Your task to perform on an android device: change the clock style Image 0: 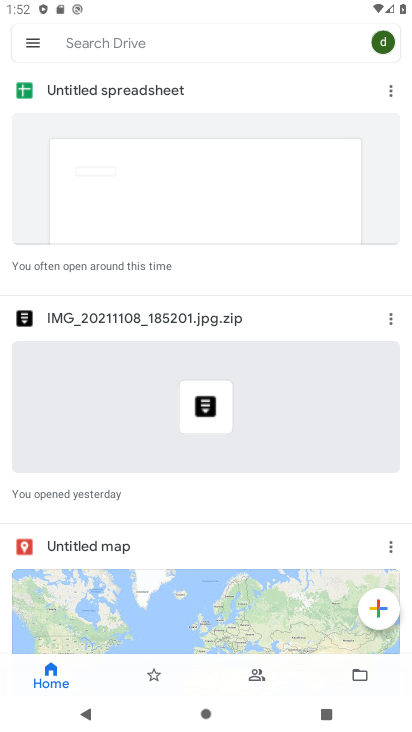
Step 0: press home button
Your task to perform on an android device: change the clock style Image 1: 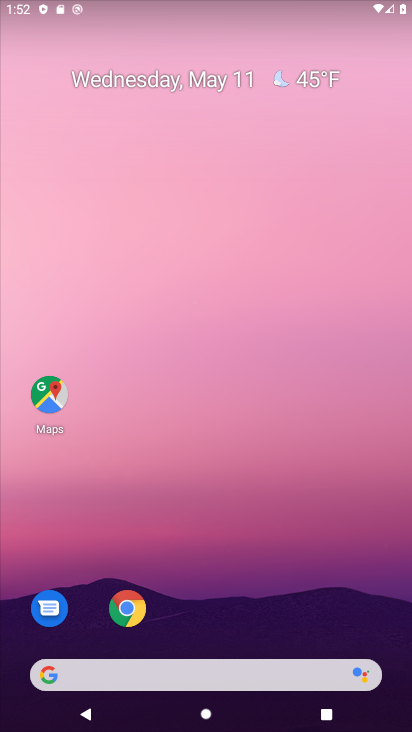
Step 1: drag from (239, 605) to (260, 104)
Your task to perform on an android device: change the clock style Image 2: 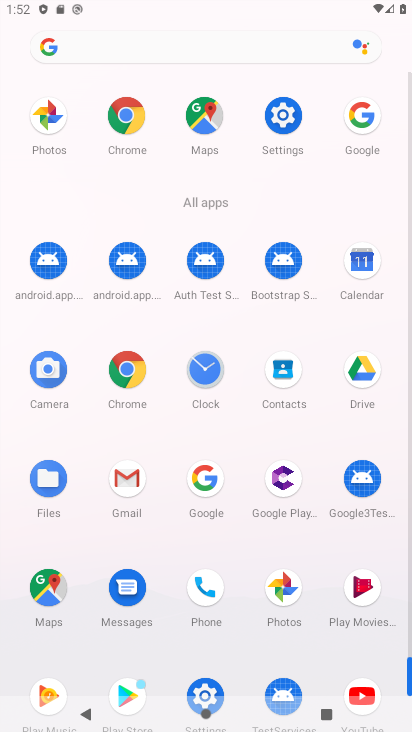
Step 2: click (211, 372)
Your task to perform on an android device: change the clock style Image 3: 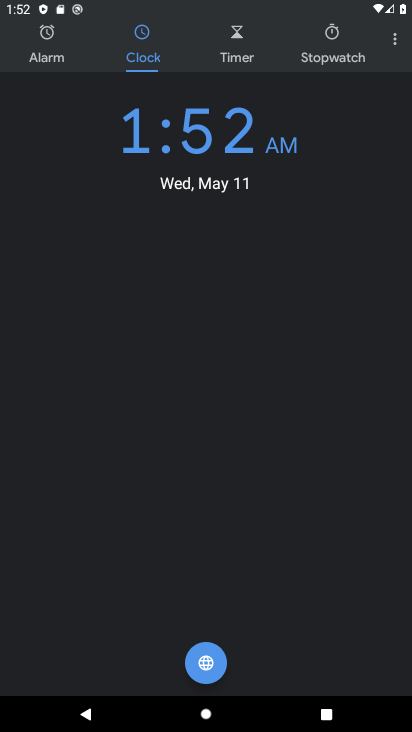
Step 3: click (391, 41)
Your task to perform on an android device: change the clock style Image 4: 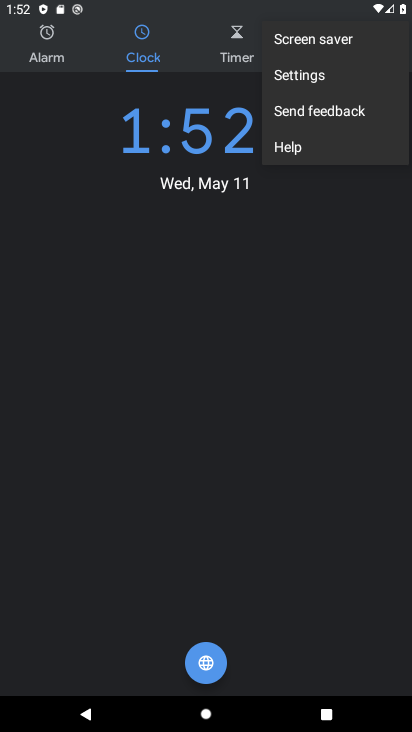
Step 4: click (324, 71)
Your task to perform on an android device: change the clock style Image 5: 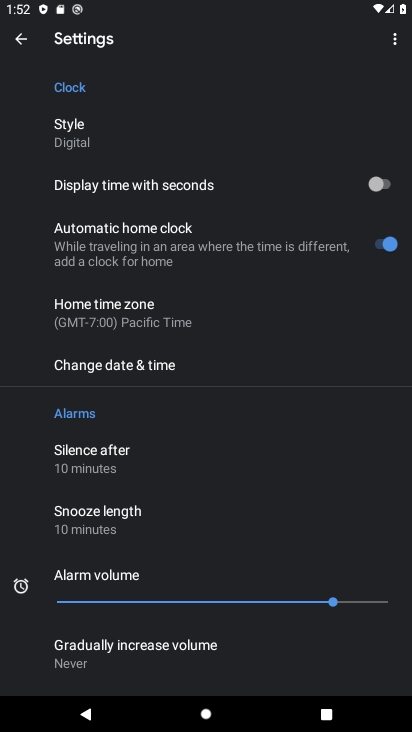
Step 5: click (133, 130)
Your task to perform on an android device: change the clock style Image 6: 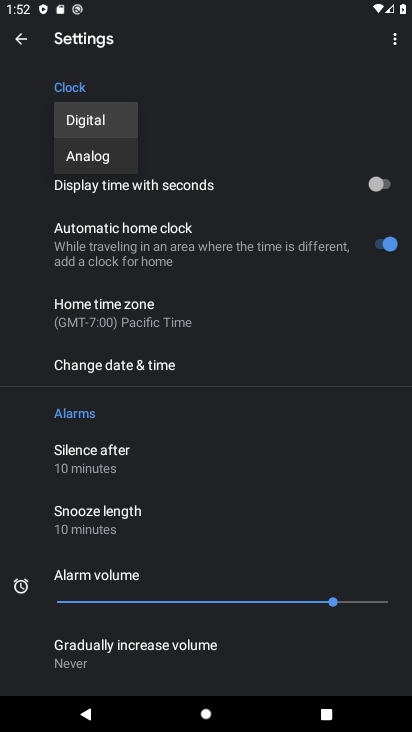
Step 6: click (103, 155)
Your task to perform on an android device: change the clock style Image 7: 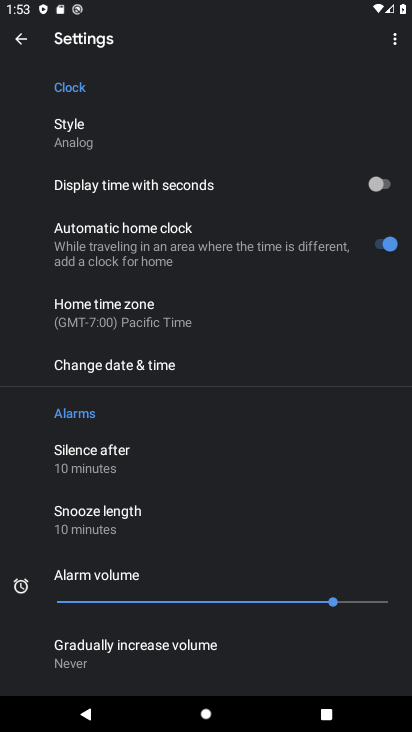
Step 7: task complete